Your task to perform on an android device: change alarm snooze length Image 0: 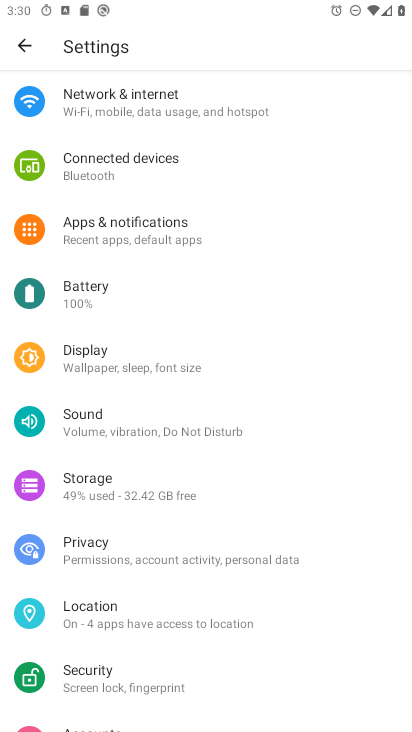
Step 0: press home button
Your task to perform on an android device: change alarm snooze length Image 1: 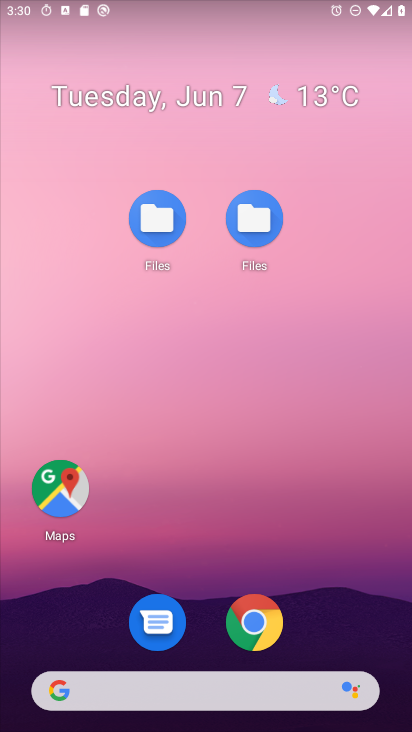
Step 1: drag from (326, 527) to (175, 39)
Your task to perform on an android device: change alarm snooze length Image 2: 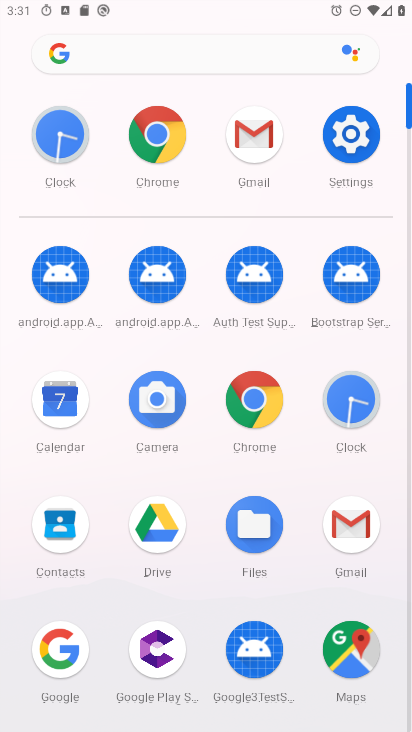
Step 2: click (352, 397)
Your task to perform on an android device: change alarm snooze length Image 3: 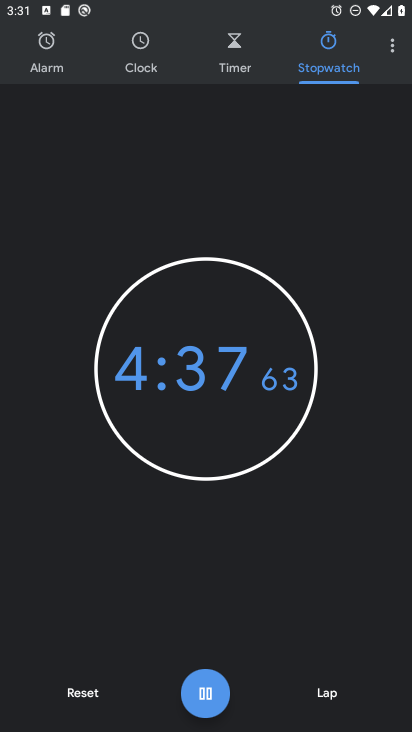
Step 3: click (391, 48)
Your task to perform on an android device: change alarm snooze length Image 4: 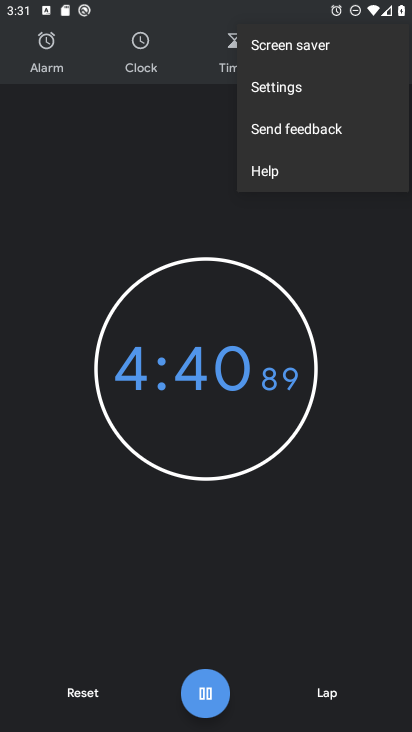
Step 4: click (296, 92)
Your task to perform on an android device: change alarm snooze length Image 5: 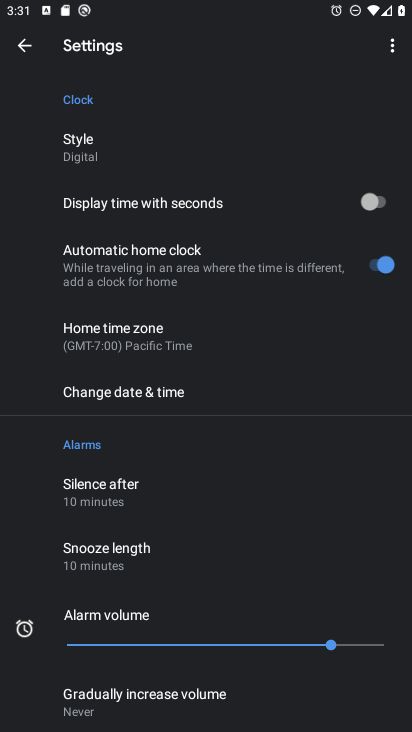
Step 5: click (136, 556)
Your task to perform on an android device: change alarm snooze length Image 6: 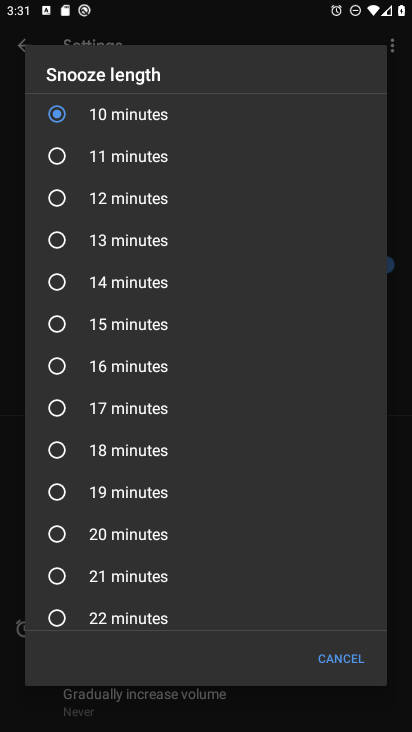
Step 6: drag from (210, 156) to (227, 422)
Your task to perform on an android device: change alarm snooze length Image 7: 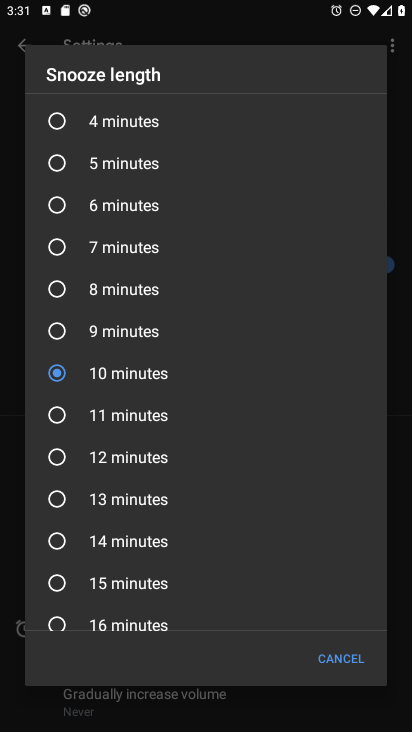
Step 7: click (55, 163)
Your task to perform on an android device: change alarm snooze length Image 8: 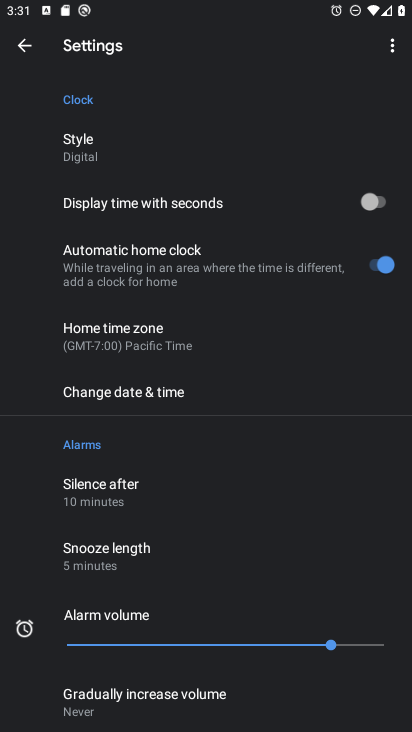
Step 8: task complete